Your task to perform on an android device: toggle notification dots Image 0: 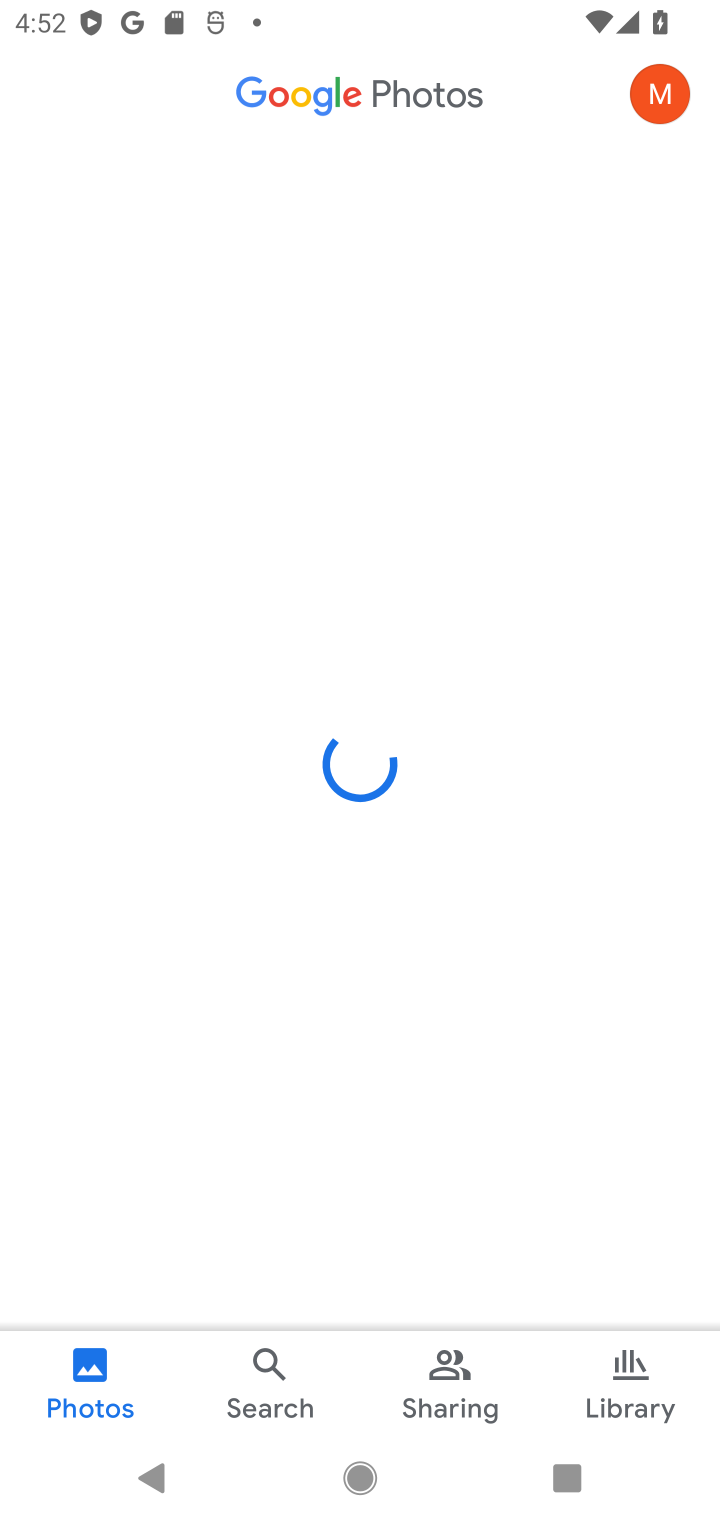
Step 0: press home button
Your task to perform on an android device: toggle notification dots Image 1: 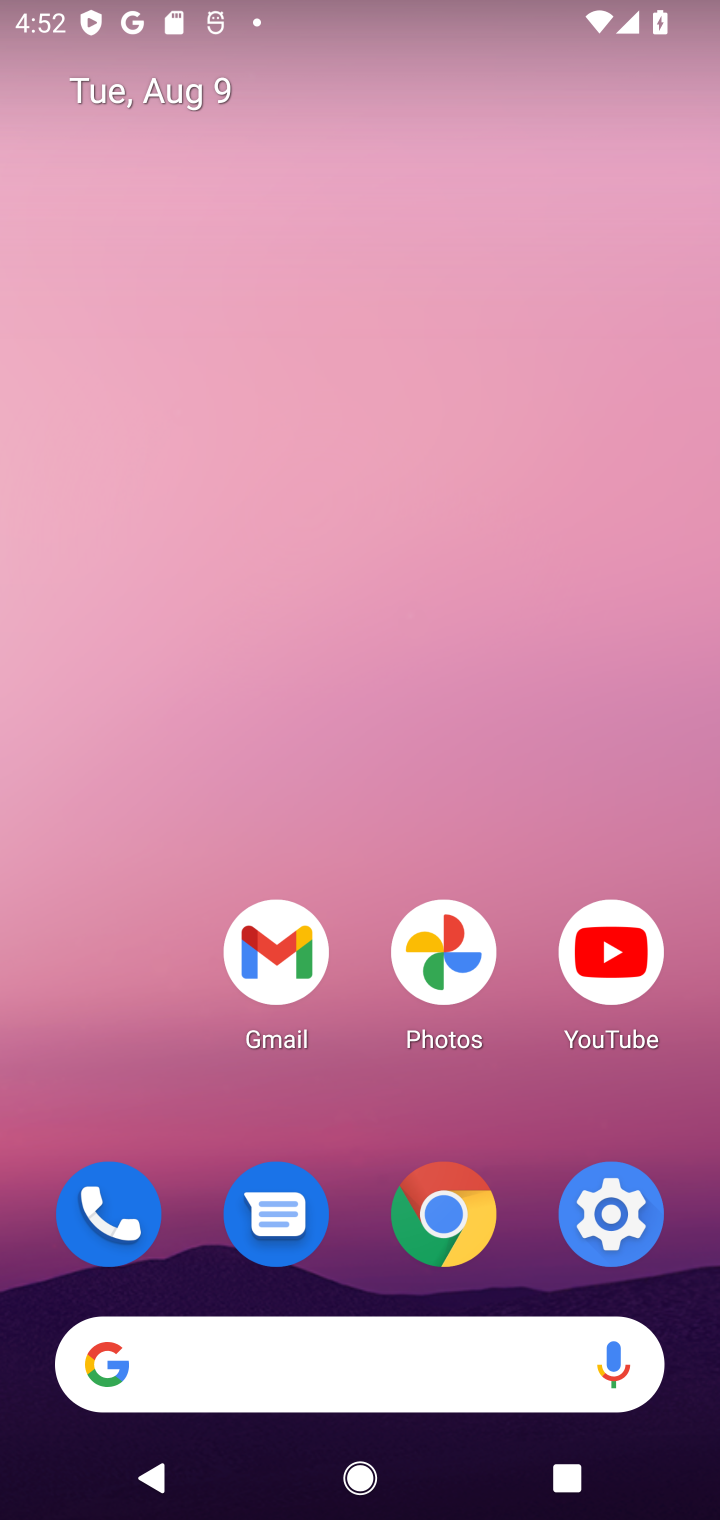
Step 1: click (611, 1232)
Your task to perform on an android device: toggle notification dots Image 2: 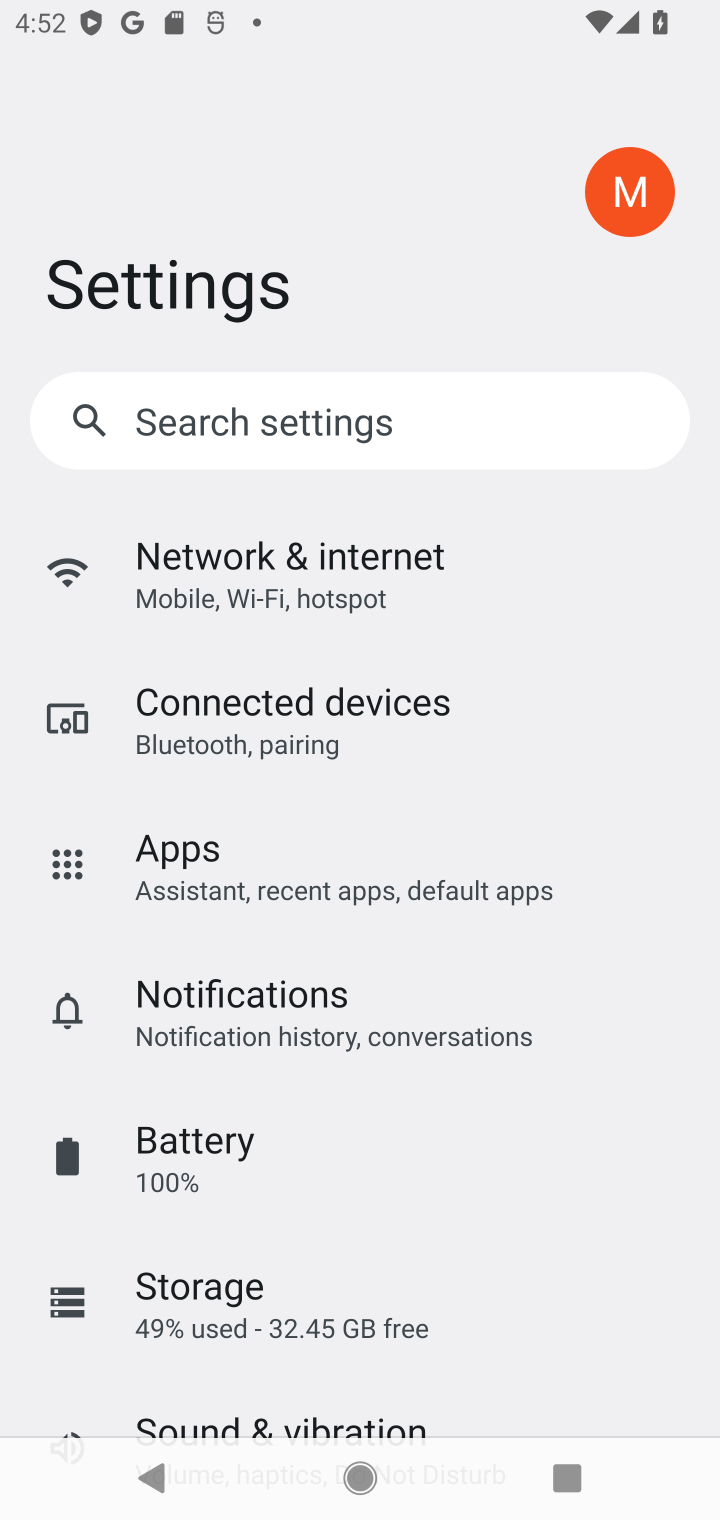
Step 2: click (344, 431)
Your task to perform on an android device: toggle notification dots Image 3: 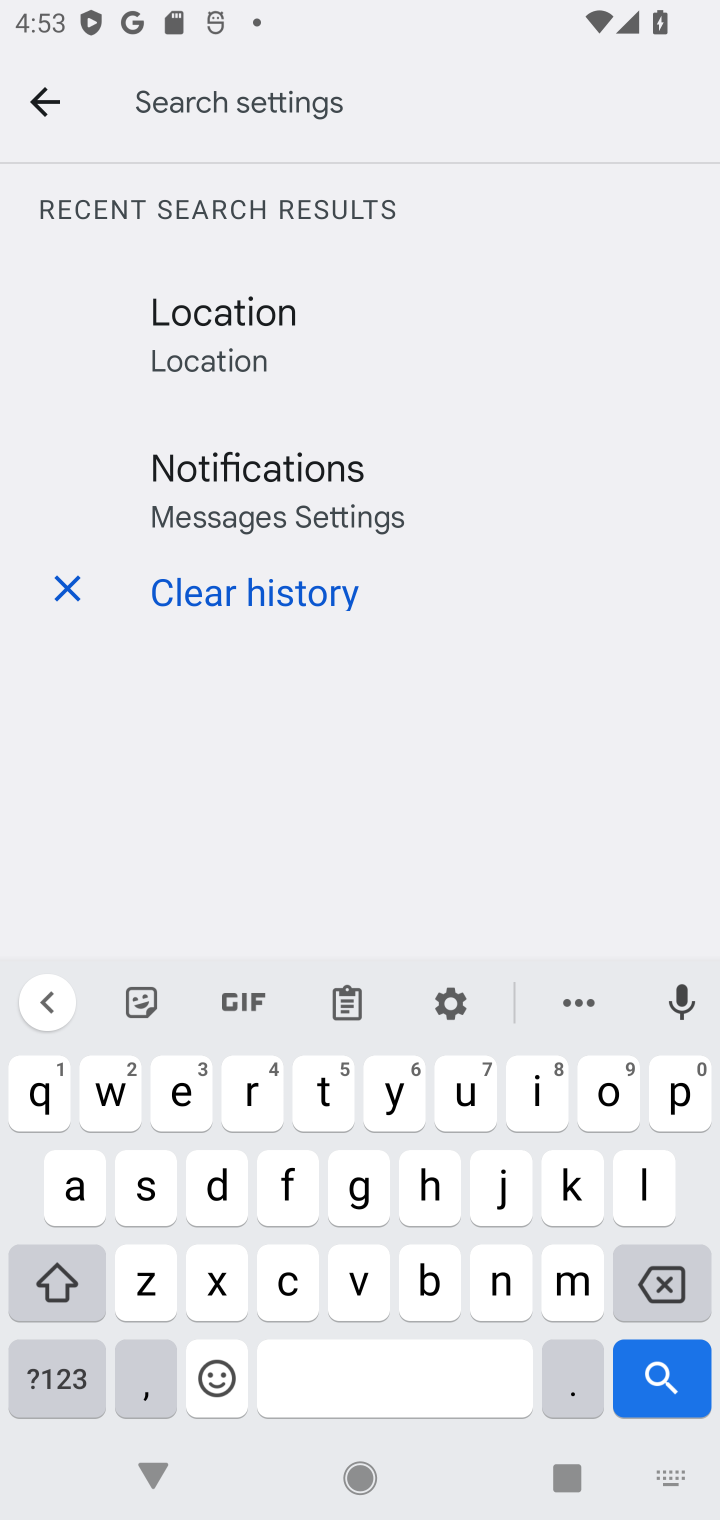
Step 3: click (274, 500)
Your task to perform on an android device: toggle notification dots Image 4: 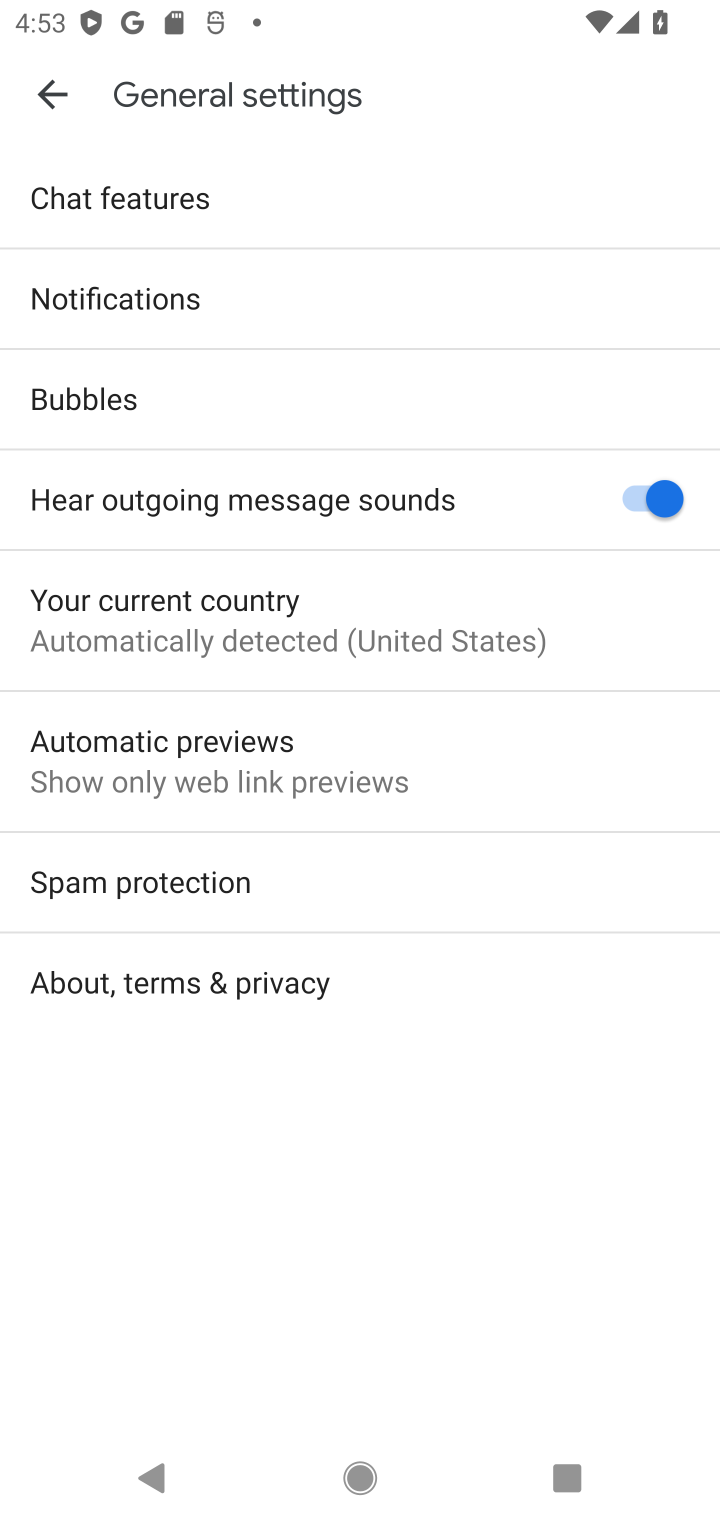
Step 4: click (191, 323)
Your task to perform on an android device: toggle notification dots Image 5: 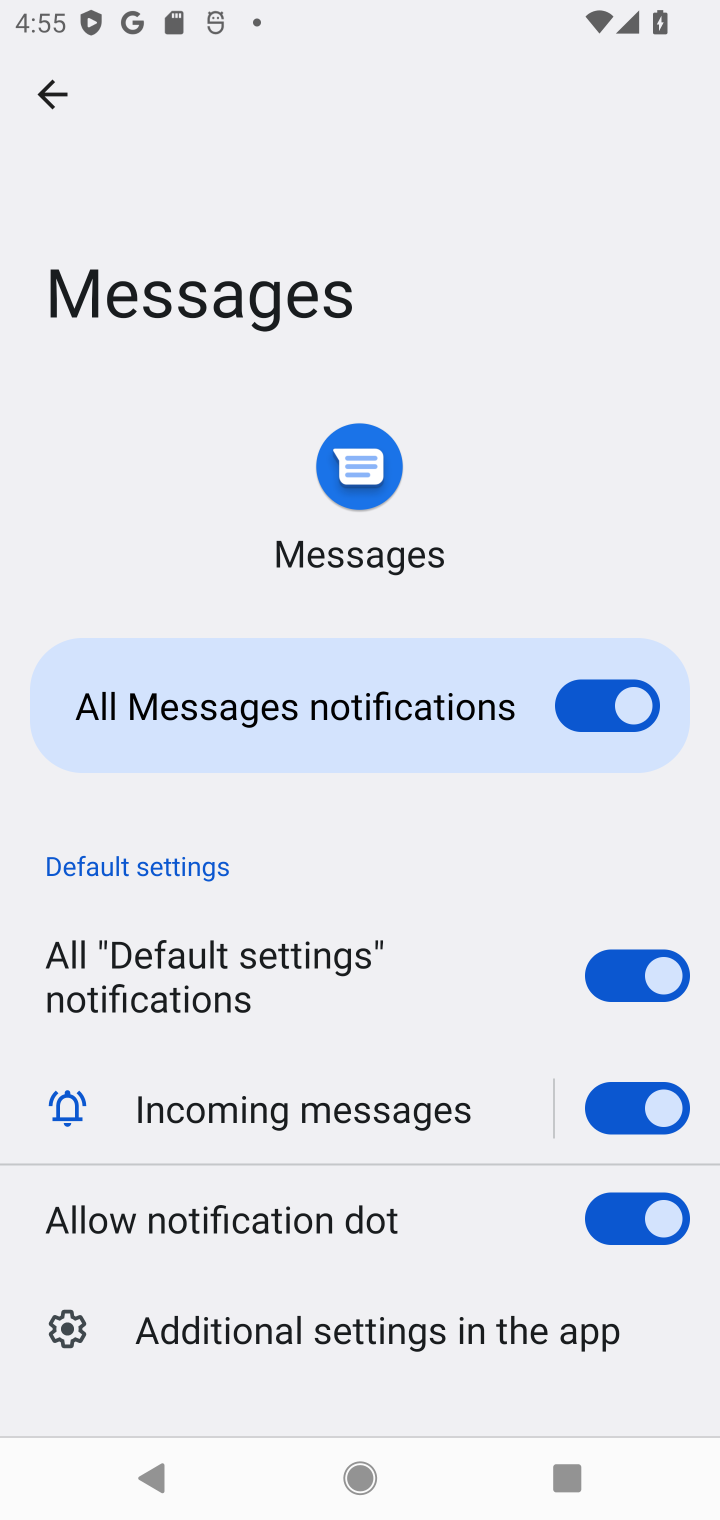
Step 5: task complete